Your task to perform on an android device: turn off translation in the chrome app Image 0: 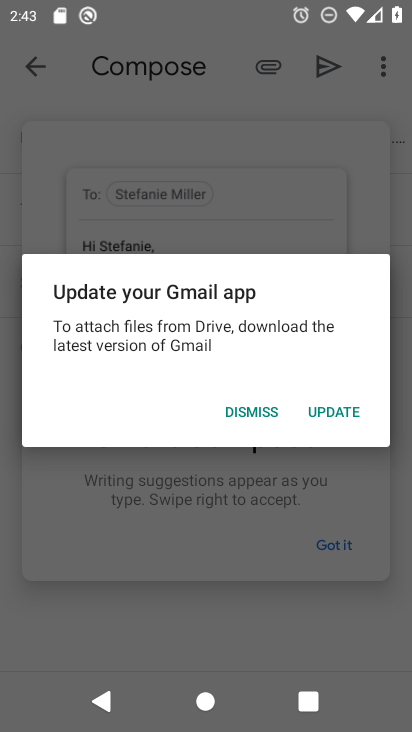
Step 0: press home button
Your task to perform on an android device: turn off translation in the chrome app Image 1: 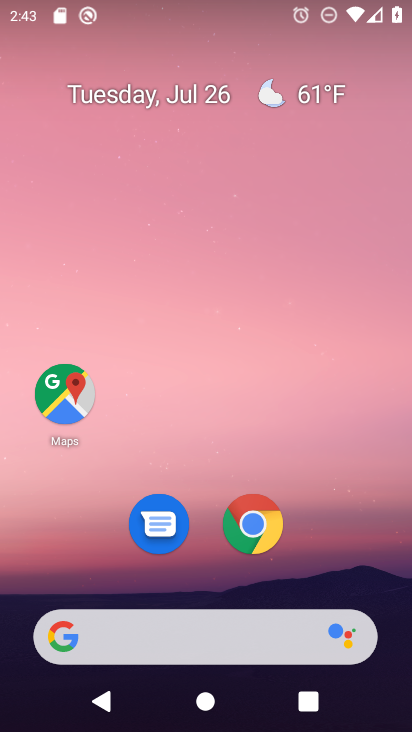
Step 1: click (257, 534)
Your task to perform on an android device: turn off translation in the chrome app Image 2: 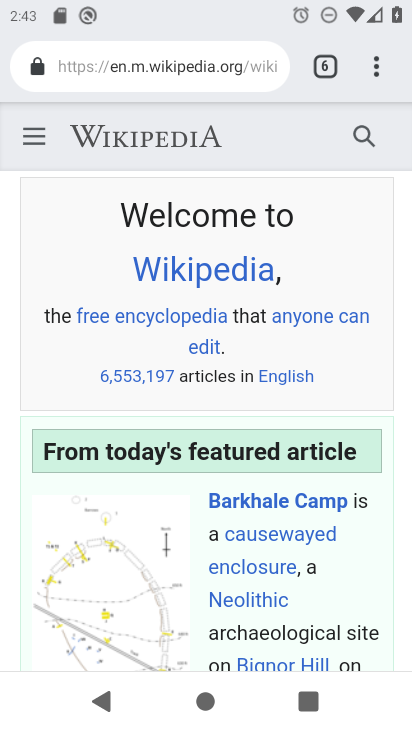
Step 2: drag from (376, 72) to (198, 531)
Your task to perform on an android device: turn off translation in the chrome app Image 3: 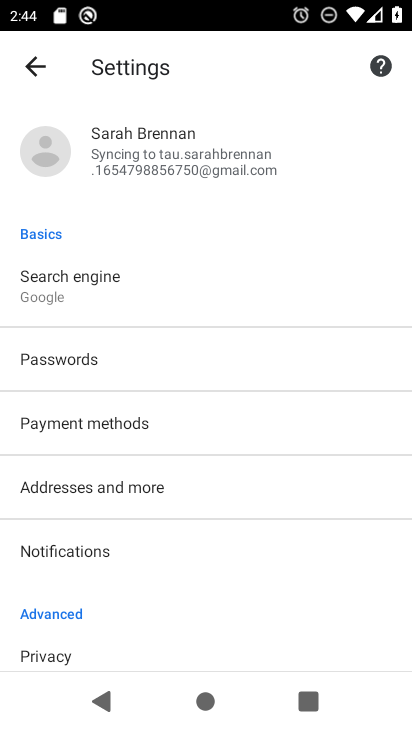
Step 3: drag from (179, 588) to (321, 206)
Your task to perform on an android device: turn off translation in the chrome app Image 4: 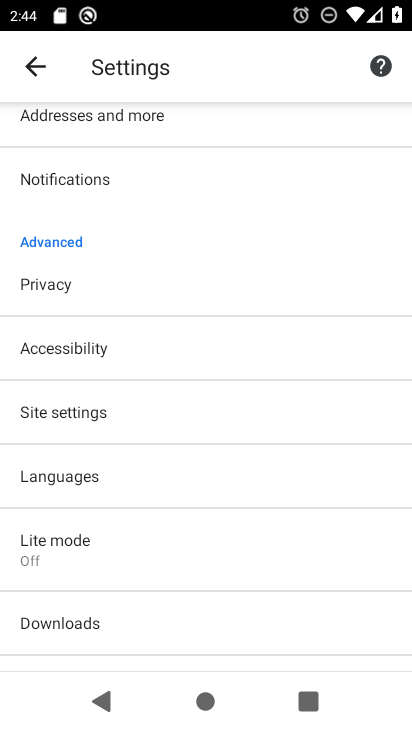
Step 4: click (94, 480)
Your task to perform on an android device: turn off translation in the chrome app Image 5: 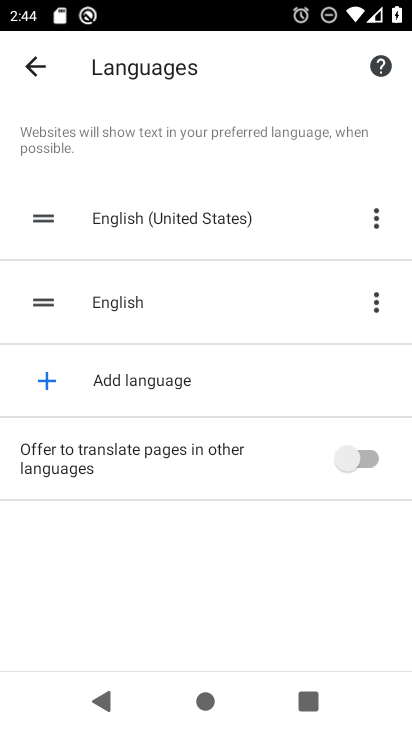
Step 5: task complete